Your task to perform on an android device: Open Google Chrome and open the bookmarks view Image 0: 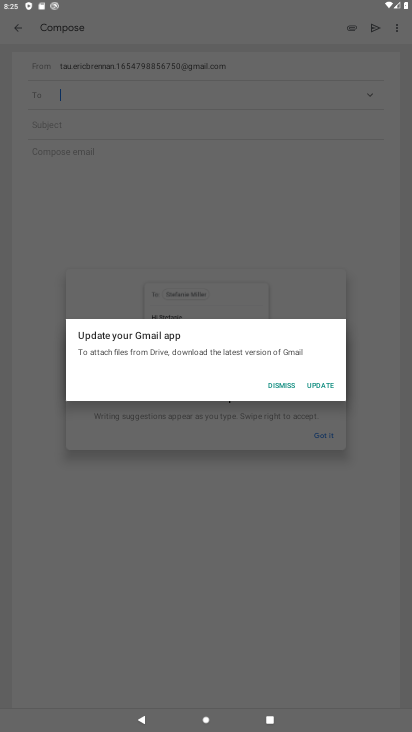
Step 0: press home button
Your task to perform on an android device: Open Google Chrome and open the bookmarks view Image 1: 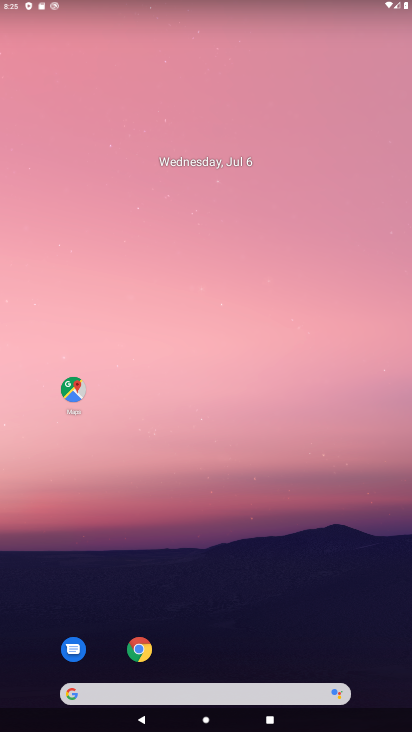
Step 1: drag from (180, 558) to (197, 55)
Your task to perform on an android device: Open Google Chrome and open the bookmarks view Image 2: 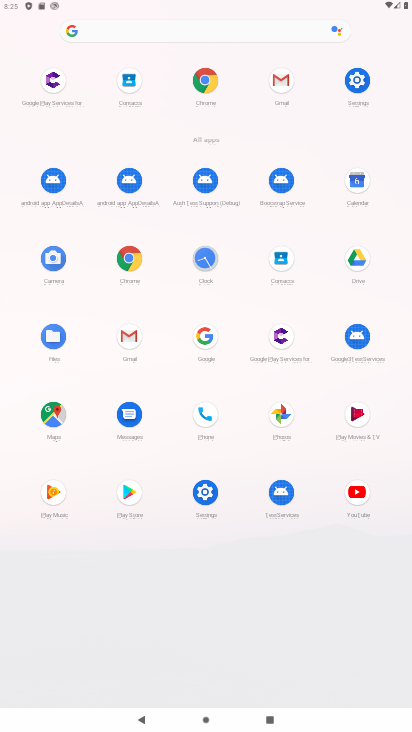
Step 2: click (128, 267)
Your task to perform on an android device: Open Google Chrome and open the bookmarks view Image 3: 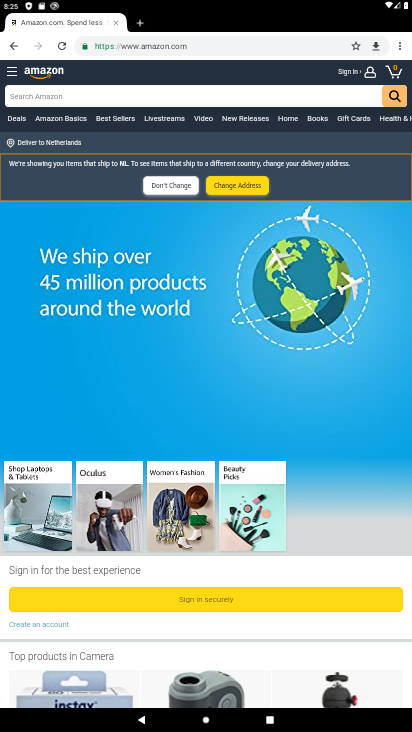
Step 3: click (400, 47)
Your task to perform on an android device: Open Google Chrome and open the bookmarks view Image 4: 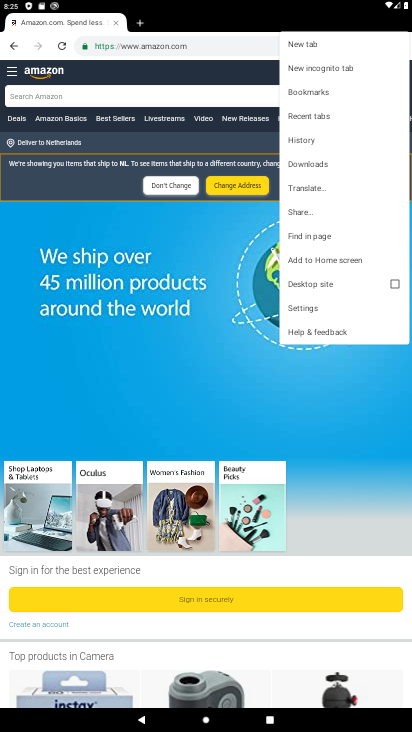
Step 4: click (322, 93)
Your task to perform on an android device: Open Google Chrome and open the bookmarks view Image 5: 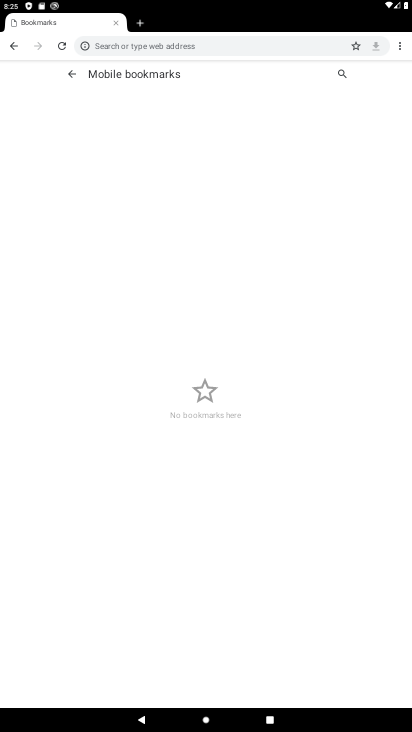
Step 5: task complete